Your task to perform on an android device: Open wifi settings Image 0: 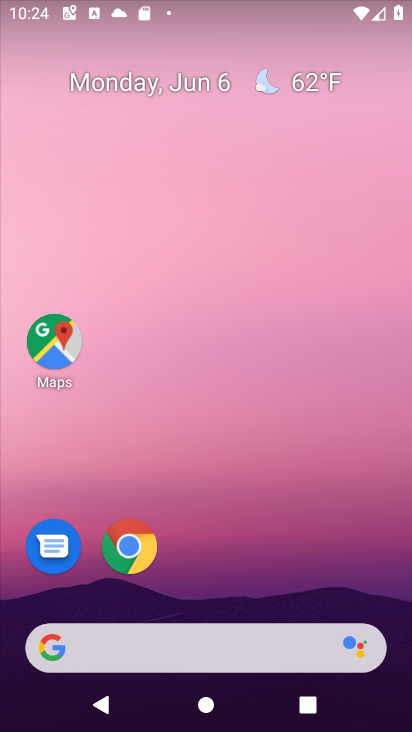
Step 0: drag from (398, 644) to (296, 173)
Your task to perform on an android device: Open wifi settings Image 1: 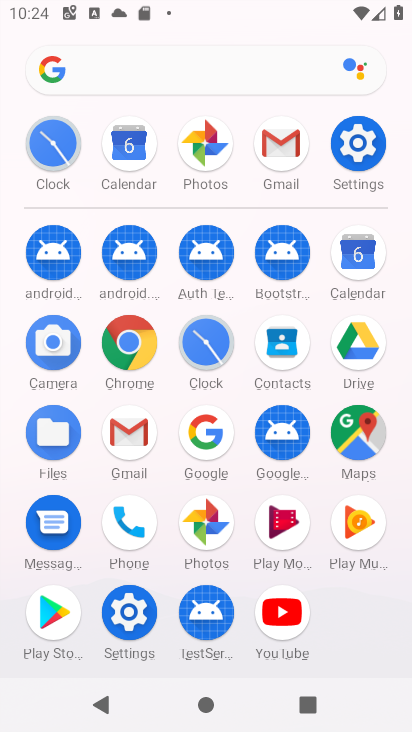
Step 1: click (130, 610)
Your task to perform on an android device: Open wifi settings Image 2: 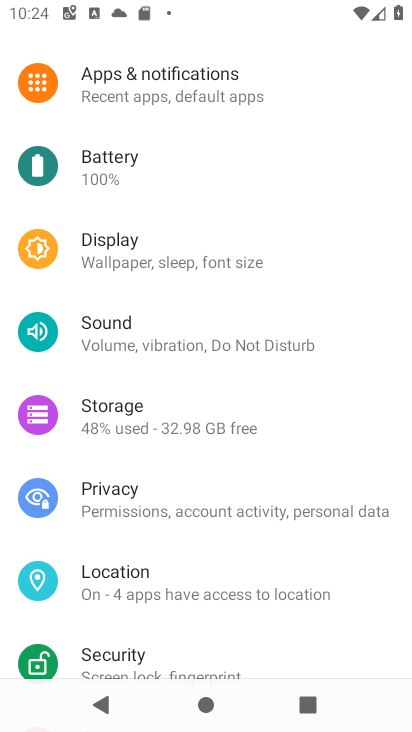
Step 2: drag from (359, 164) to (370, 487)
Your task to perform on an android device: Open wifi settings Image 3: 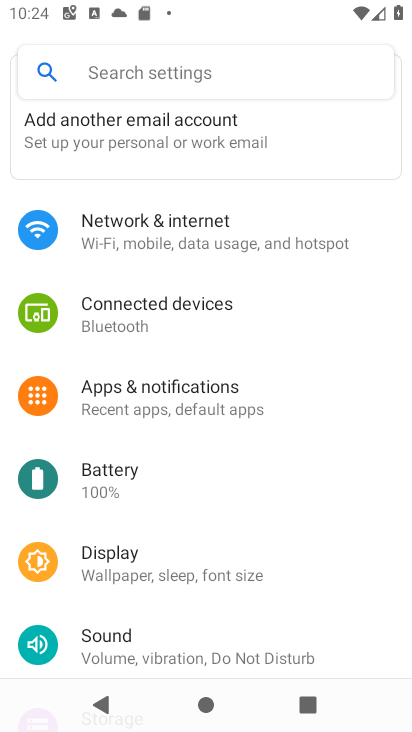
Step 3: click (145, 227)
Your task to perform on an android device: Open wifi settings Image 4: 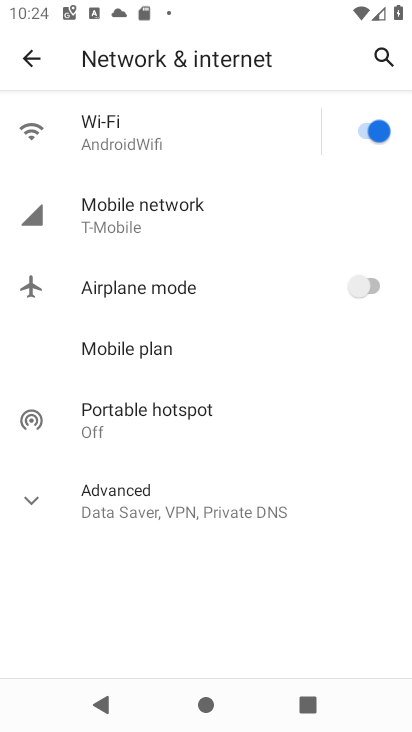
Step 4: click (96, 125)
Your task to perform on an android device: Open wifi settings Image 5: 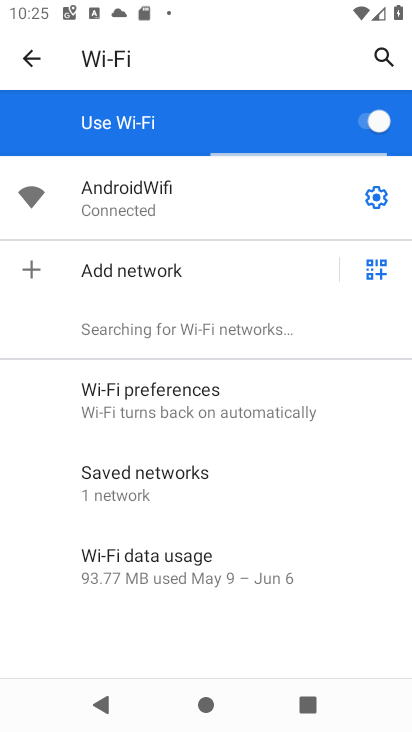
Step 5: click (375, 197)
Your task to perform on an android device: Open wifi settings Image 6: 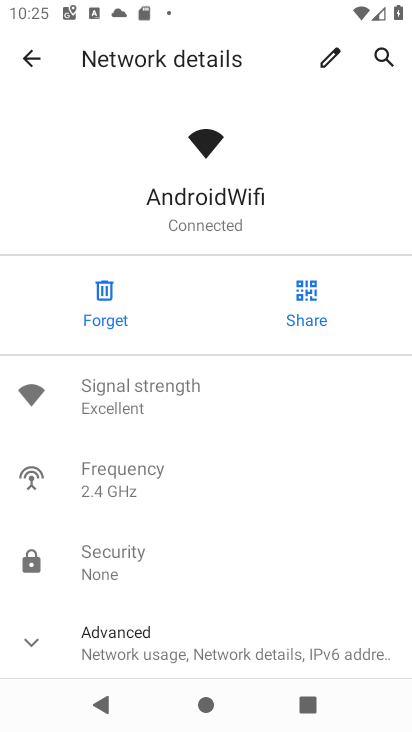
Step 6: drag from (280, 596) to (267, 238)
Your task to perform on an android device: Open wifi settings Image 7: 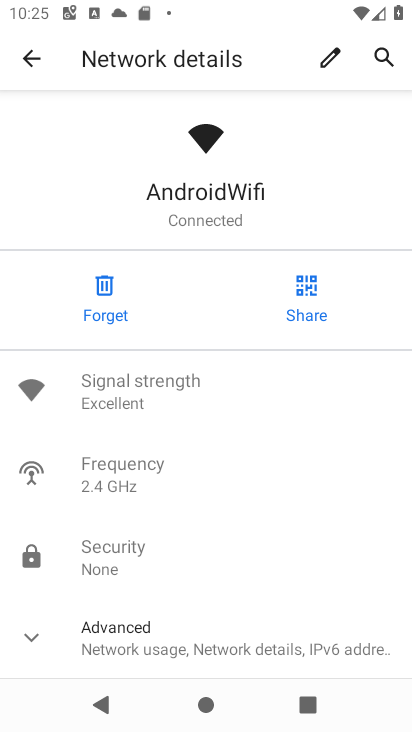
Step 7: click (30, 640)
Your task to perform on an android device: Open wifi settings Image 8: 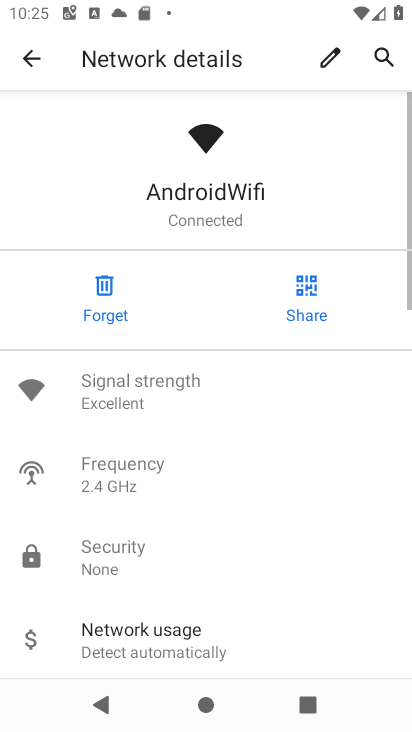
Step 8: task complete